Your task to perform on an android device: turn off notifications settings in the gmail app Image 0: 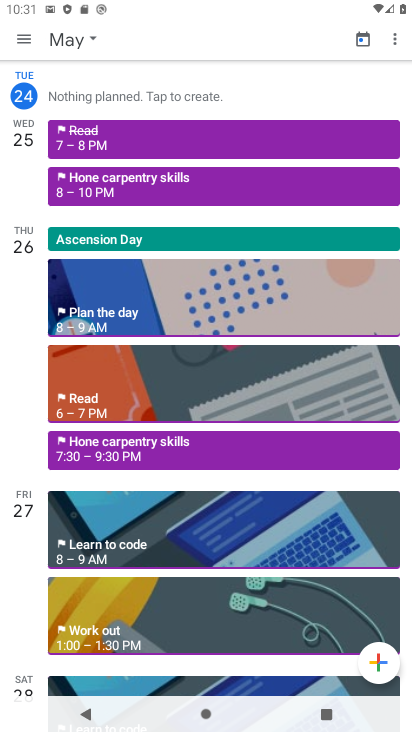
Step 0: press home button
Your task to perform on an android device: turn off notifications settings in the gmail app Image 1: 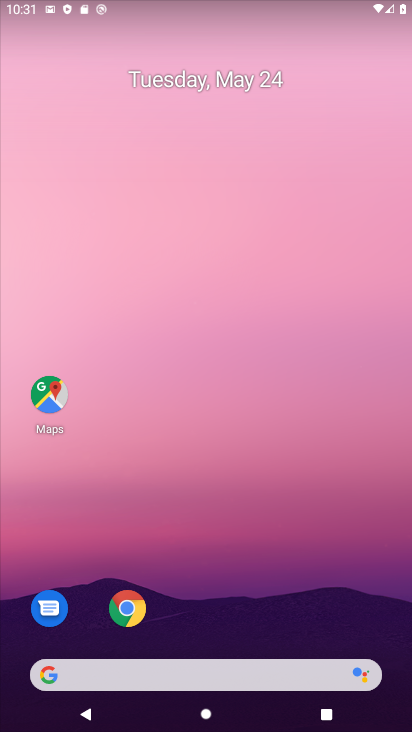
Step 1: drag from (385, 620) to (300, 175)
Your task to perform on an android device: turn off notifications settings in the gmail app Image 2: 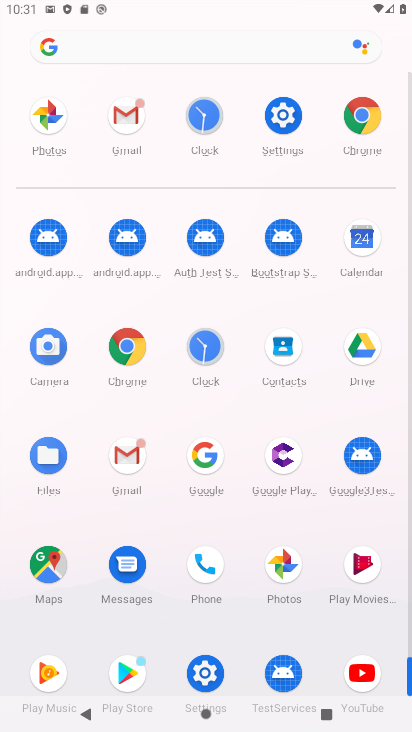
Step 2: click (127, 457)
Your task to perform on an android device: turn off notifications settings in the gmail app Image 3: 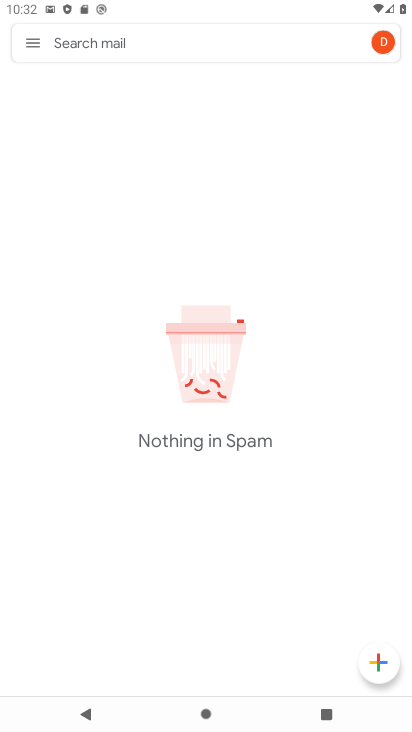
Step 3: click (26, 38)
Your task to perform on an android device: turn off notifications settings in the gmail app Image 4: 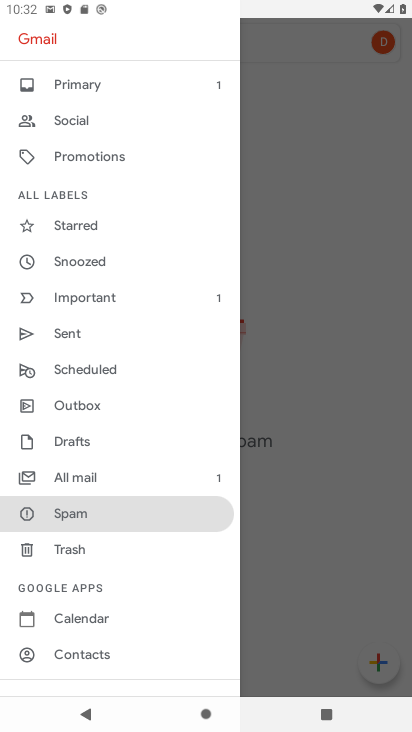
Step 4: drag from (157, 635) to (162, 290)
Your task to perform on an android device: turn off notifications settings in the gmail app Image 5: 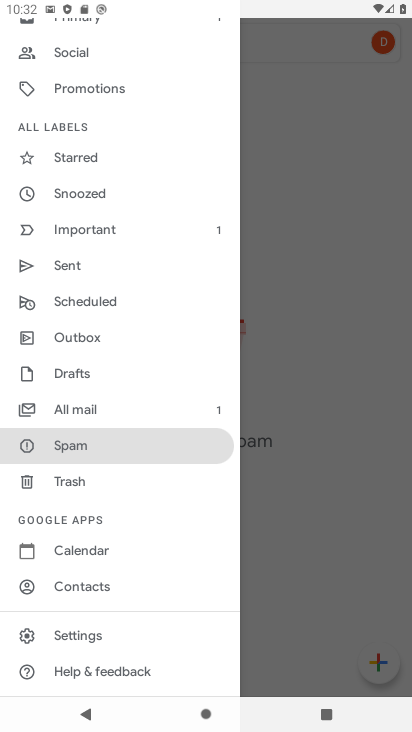
Step 5: click (87, 627)
Your task to perform on an android device: turn off notifications settings in the gmail app Image 6: 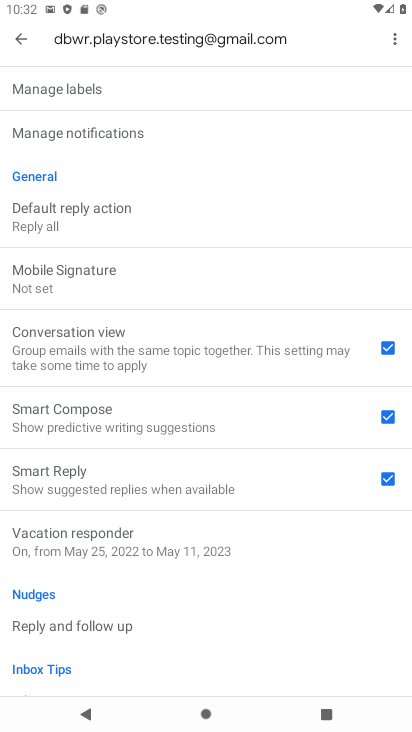
Step 6: drag from (266, 223) to (266, 406)
Your task to perform on an android device: turn off notifications settings in the gmail app Image 7: 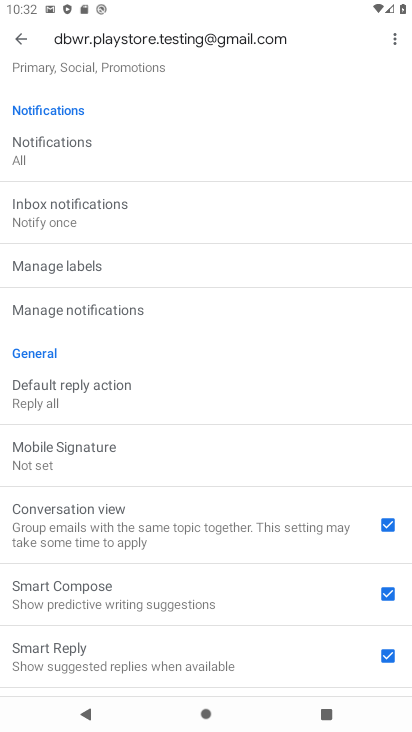
Step 7: click (80, 311)
Your task to perform on an android device: turn off notifications settings in the gmail app Image 8: 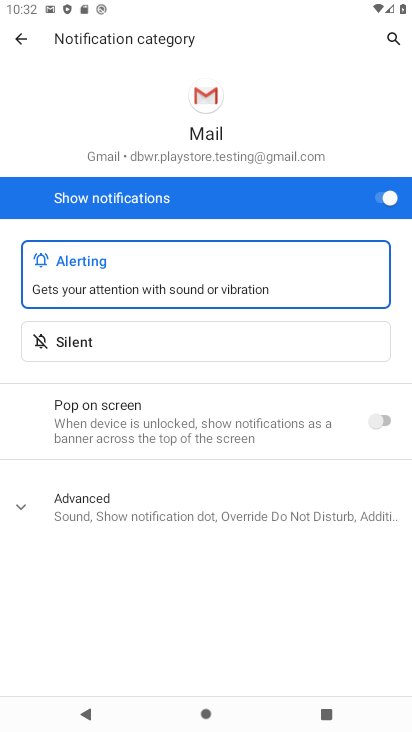
Step 8: click (376, 193)
Your task to perform on an android device: turn off notifications settings in the gmail app Image 9: 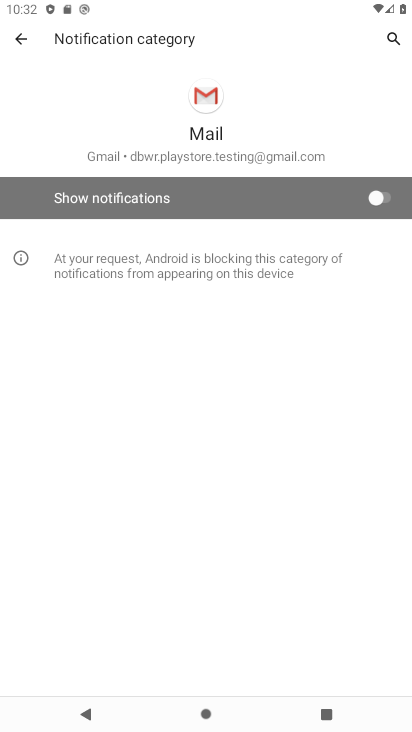
Step 9: task complete